Your task to perform on an android device: delete location history Image 0: 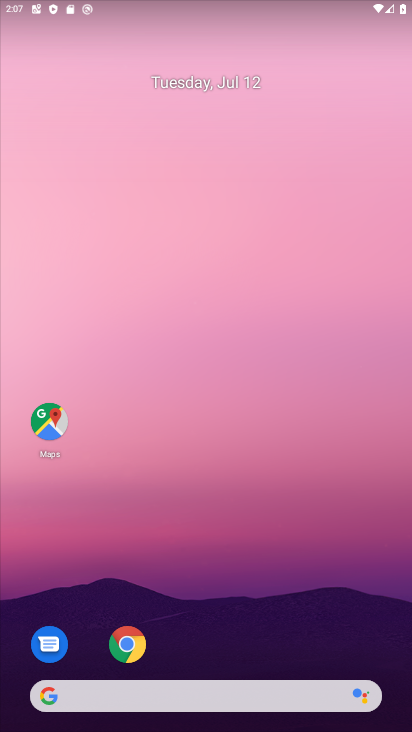
Step 0: drag from (203, 667) to (201, 36)
Your task to perform on an android device: delete location history Image 1: 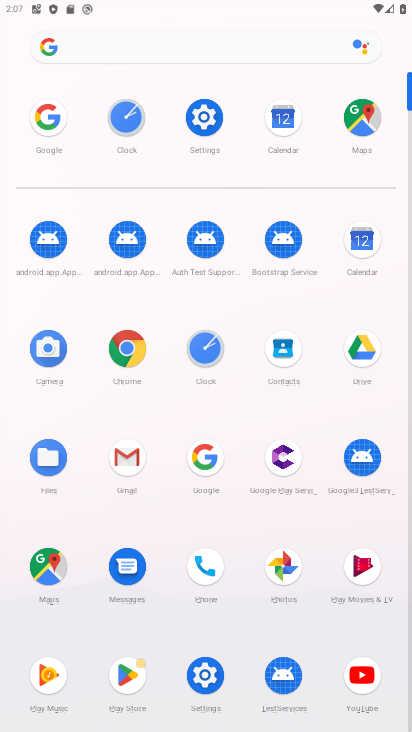
Step 1: click (211, 673)
Your task to perform on an android device: delete location history Image 2: 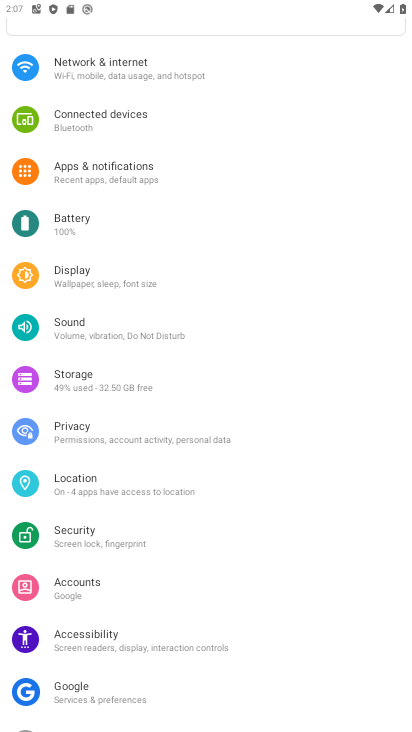
Step 2: click (98, 482)
Your task to perform on an android device: delete location history Image 3: 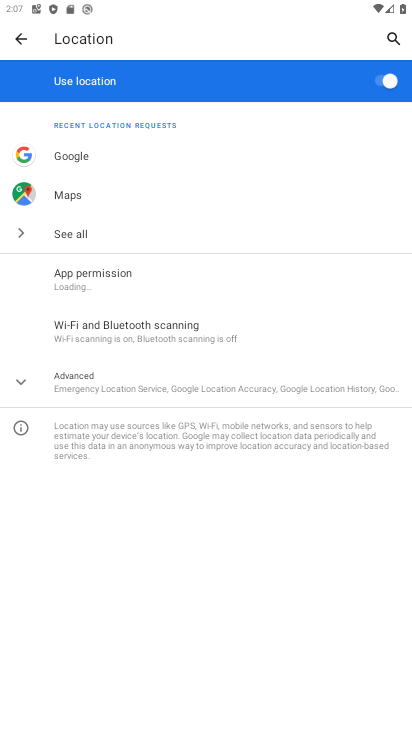
Step 3: task complete